Your task to perform on an android device: set default search engine in the chrome app Image 0: 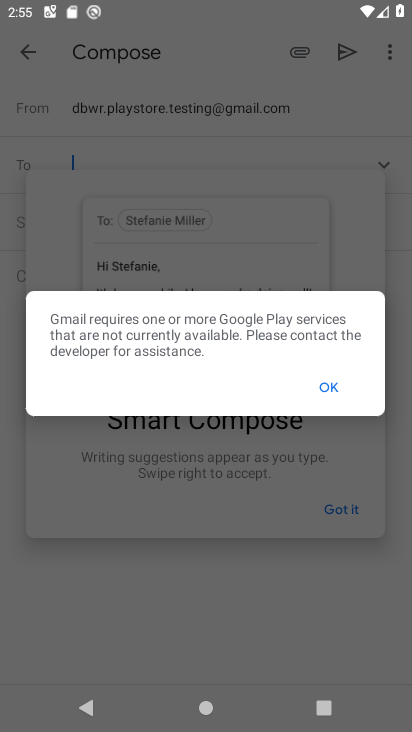
Step 0: press home button
Your task to perform on an android device: set default search engine in the chrome app Image 1: 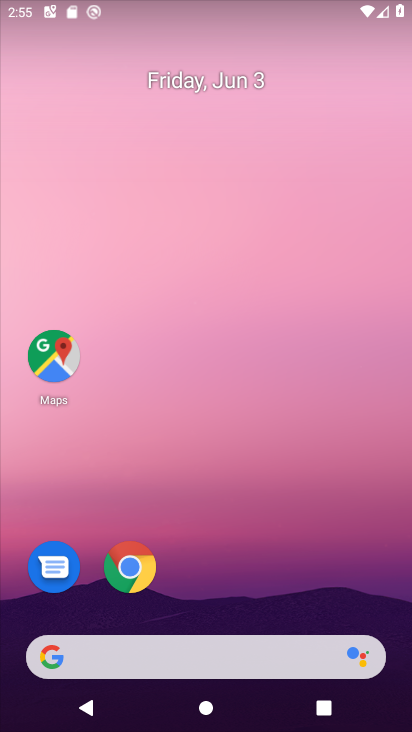
Step 1: drag from (214, 585) to (228, 156)
Your task to perform on an android device: set default search engine in the chrome app Image 2: 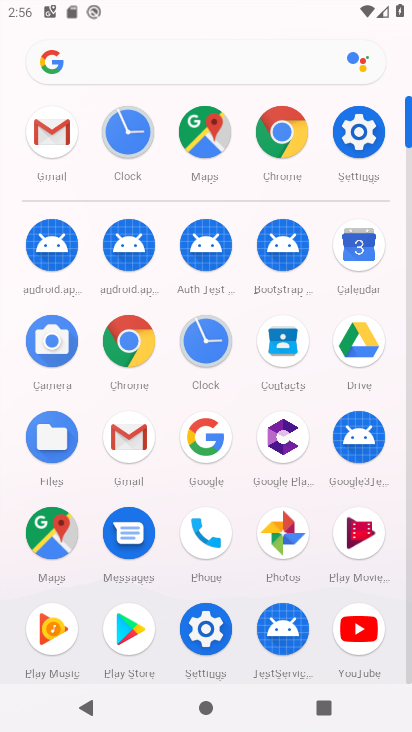
Step 2: click (127, 333)
Your task to perform on an android device: set default search engine in the chrome app Image 3: 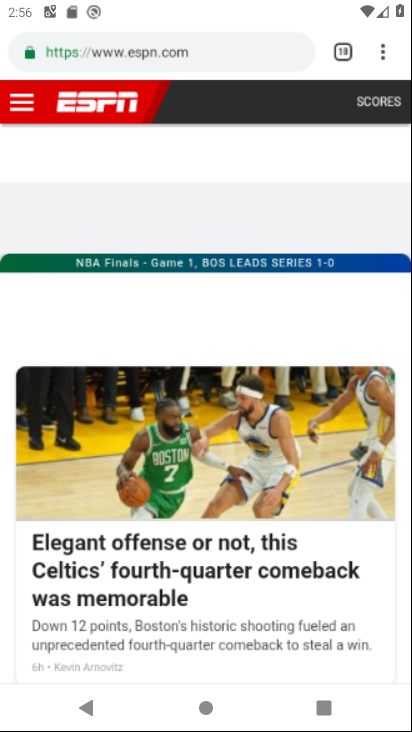
Step 3: click (399, 34)
Your task to perform on an android device: set default search engine in the chrome app Image 4: 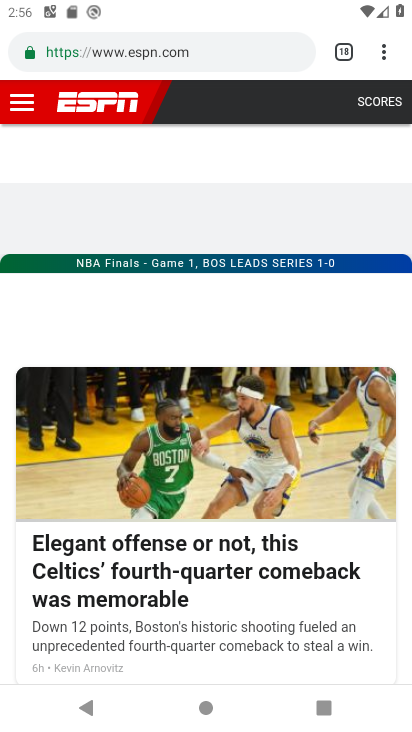
Step 4: click (380, 46)
Your task to perform on an android device: set default search engine in the chrome app Image 5: 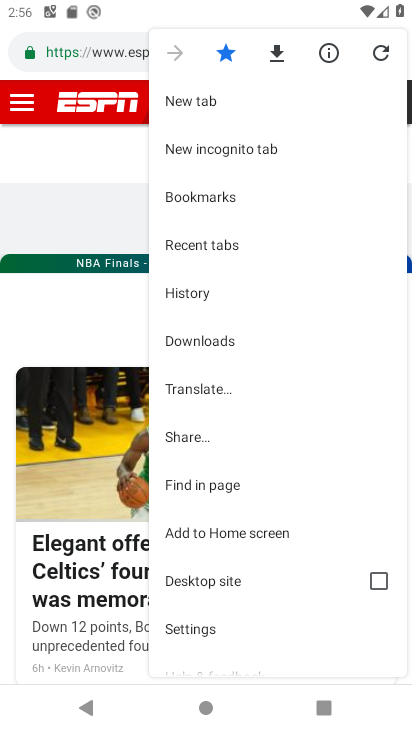
Step 5: drag from (223, 640) to (254, 344)
Your task to perform on an android device: set default search engine in the chrome app Image 6: 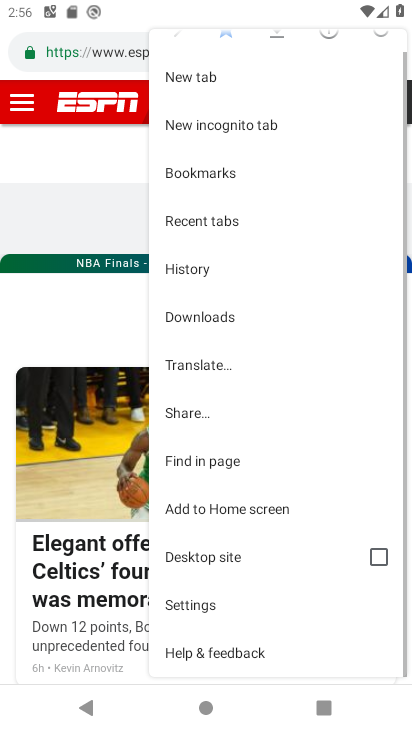
Step 6: click (221, 592)
Your task to perform on an android device: set default search engine in the chrome app Image 7: 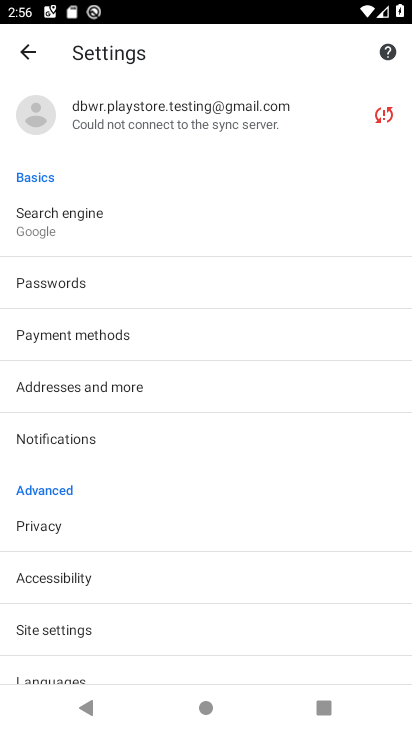
Step 7: click (152, 232)
Your task to perform on an android device: set default search engine in the chrome app Image 8: 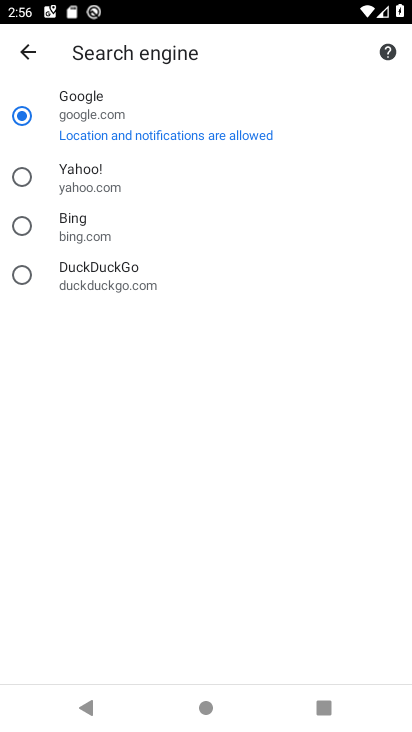
Step 8: click (66, 225)
Your task to perform on an android device: set default search engine in the chrome app Image 9: 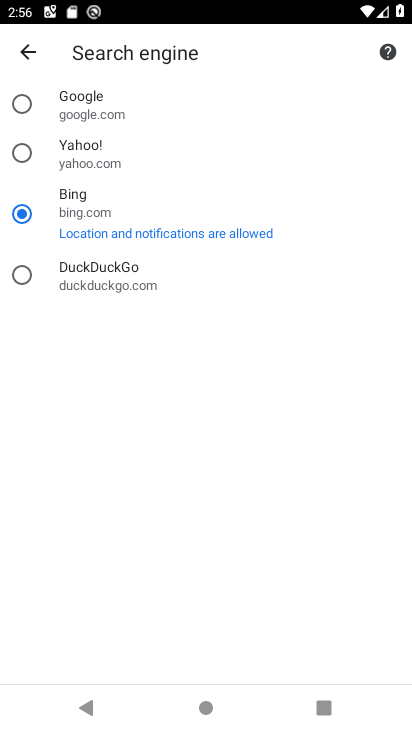
Step 9: task complete